Your task to perform on an android device: Open Google Maps and go to "Timeline" Image 0: 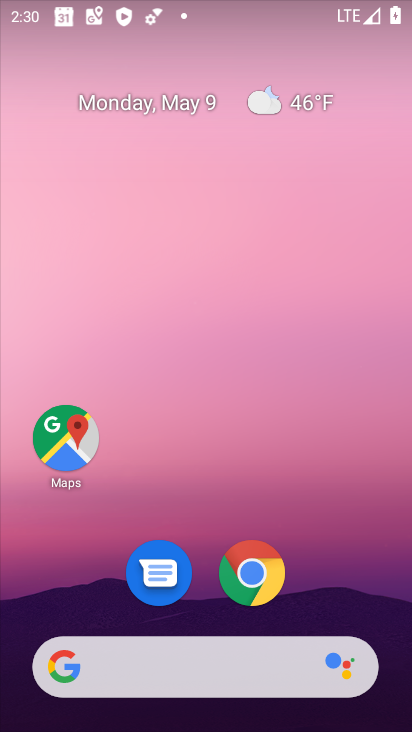
Step 0: click (65, 435)
Your task to perform on an android device: Open Google Maps and go to "Timeline" Image 1: 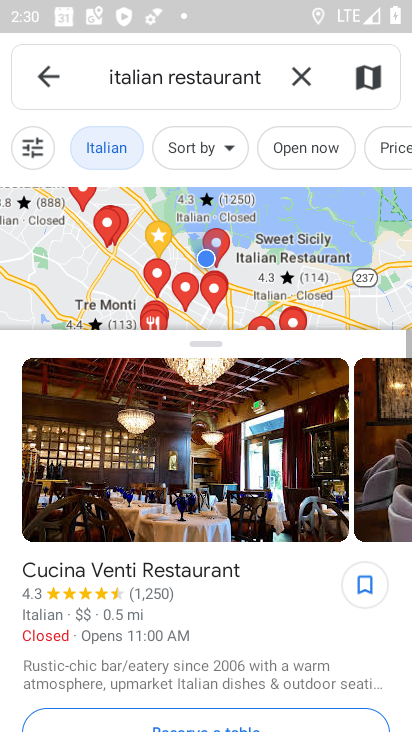
Step 1: click (298, 71)
Your task to perform on an android device: Open Google Maps and go to "Timeline" Image 2: 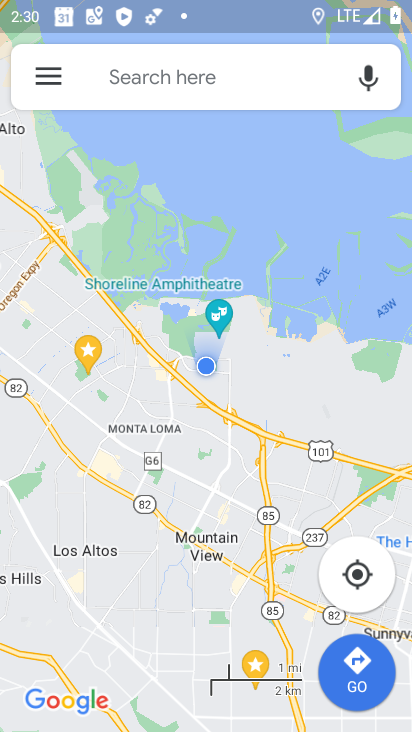
Step 2: click (35, 78)
Your task to perform on an android device: Open Google Maps and go to "Timeline" Image 3: 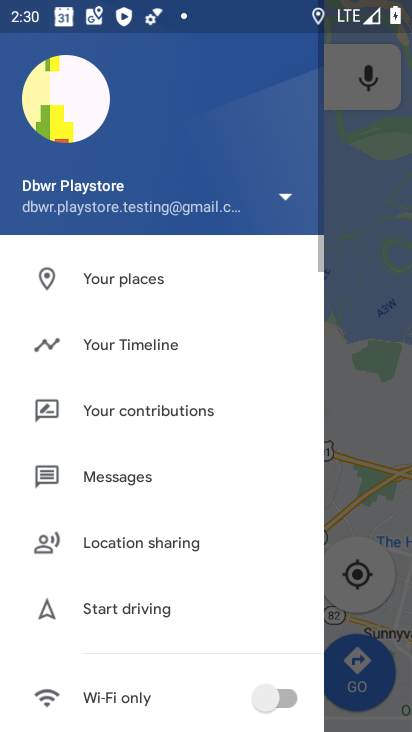
Step 3: click (113, 339)
Your task to perform on an android device: Open Google Maps and go to "Timeline" Image 4: 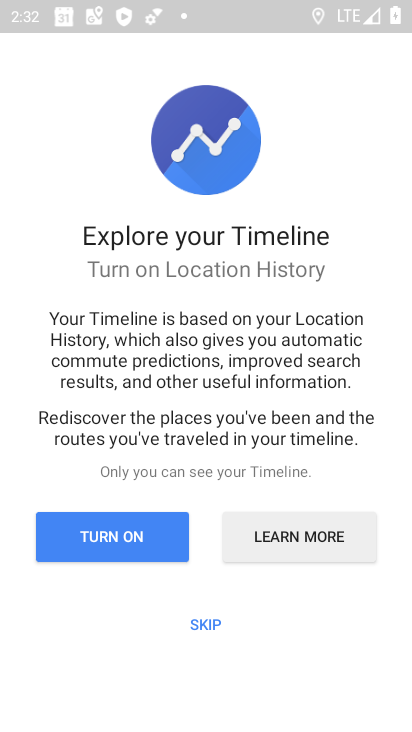
Step 4: task complete